Your task to perform on an android device: turn on javascript in the chrome app Image 0: 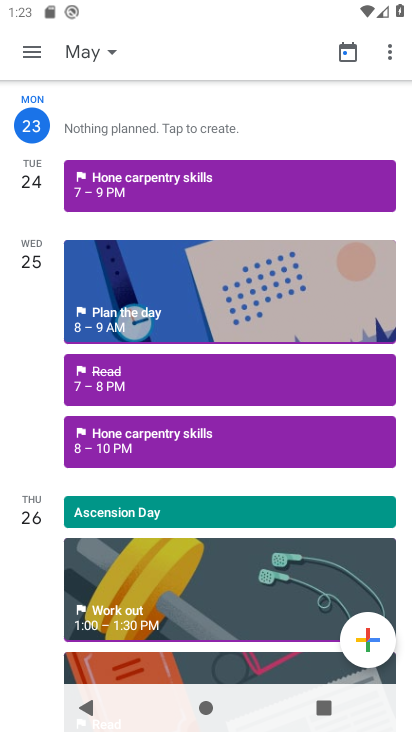
Step 0: click (204, 371)
Your task to perform on an android device: turn on javascript in the chrome app Image 1: 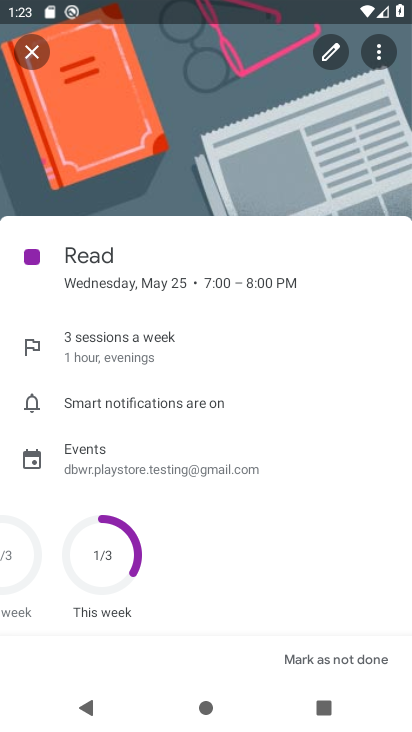
Step 1: press home button
Your task to perform on an android device: turn on javascript in the chrome app Image 2: 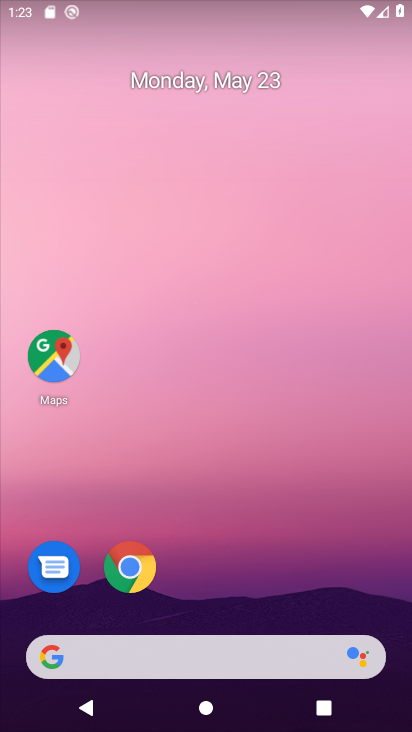
Step 2: drag from (237, 549) to (216, 265)
Your task to perform on an android device: turn on javascript in the chrome app Image 3: 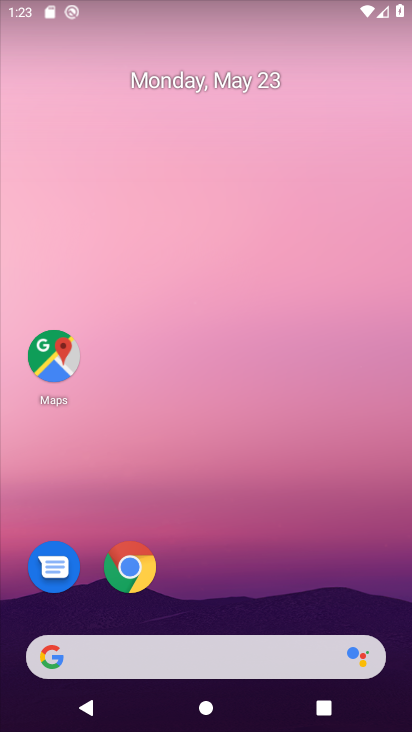
Step 3: drag from (207, 563) to (195, 192)
Your task to perform on an android device: turn on javascript in the chrome app Image 4: 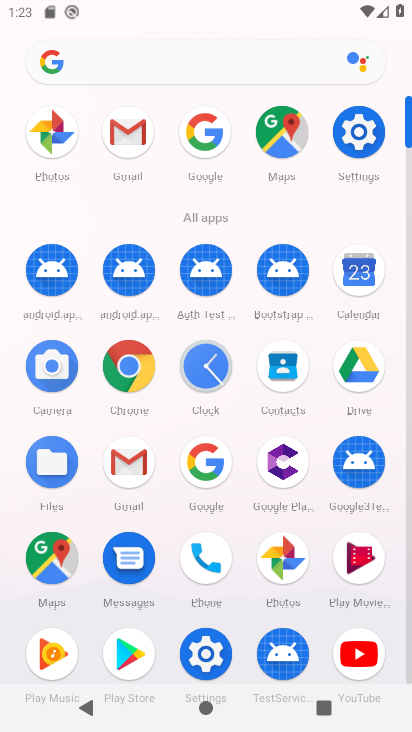
Step 4: click (133, 366)
Your task to perform on an android device: turn on javascript in the chrome app Image 5: 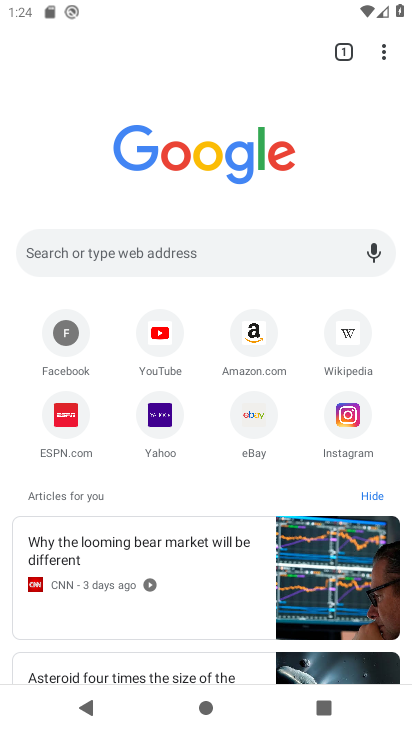
Step 5: click (402, 53)
Your task to perform on an android device: turn on javascript in the chrome app Image 6: 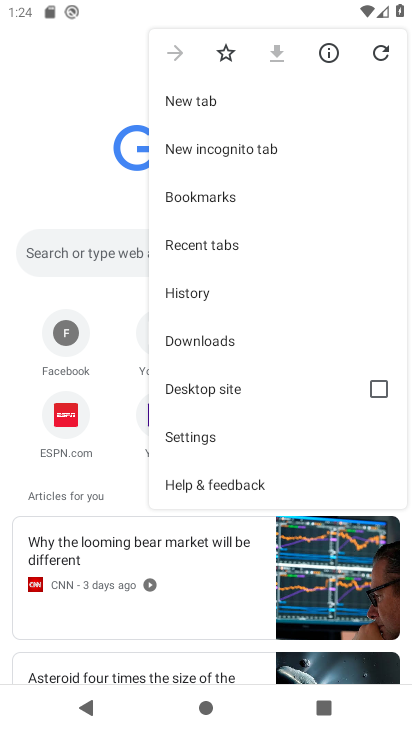
Step 6: click (388, 56)
Your task to perform on an android device: turn on javascript in the chrome app Image 7: 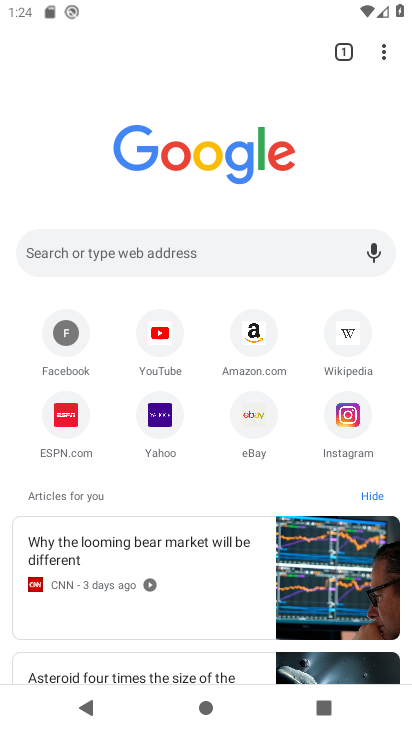
Step 7: click (384, 54)
Your task to perform on an android device: turn on javascript in the chrome app Image 8: 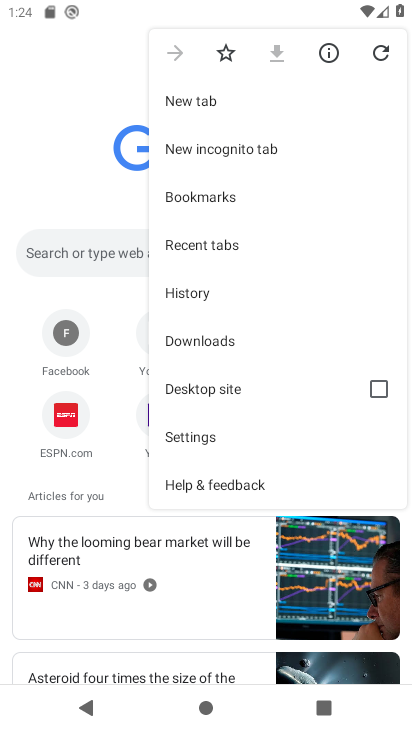
Step 8: click (224, 444)
Your task to perform on an android device: turn on javascript in the chrome app Image 9: 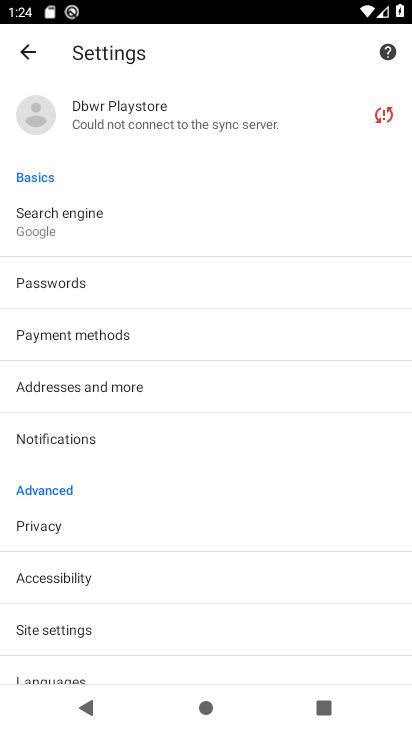
Step 9: drag from (115, 551) to (139, 373)
Your task to perform on an android device: turn on javascript in the chrome app Image 10: 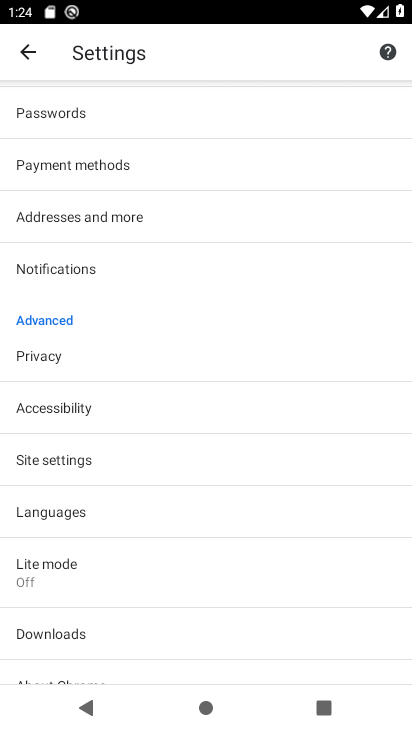
Step 10: click (89, 459)
Your task to perform on an android device: turn on javascript in the chrome app Image 11: 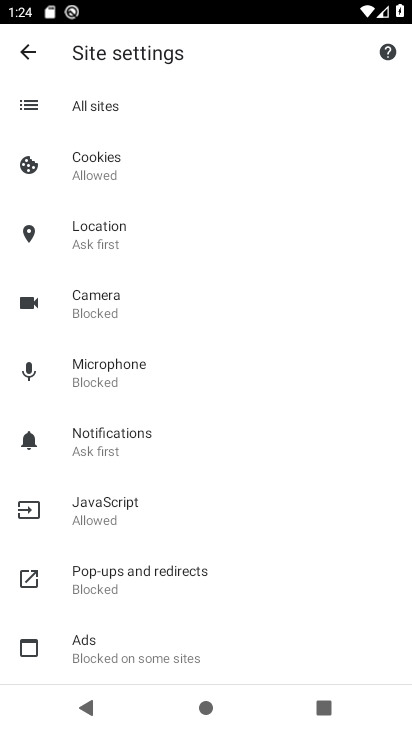
Step 11: click (146, 520)
Your task to perform on an android device: turn on javascript in the chrome app Image 12: 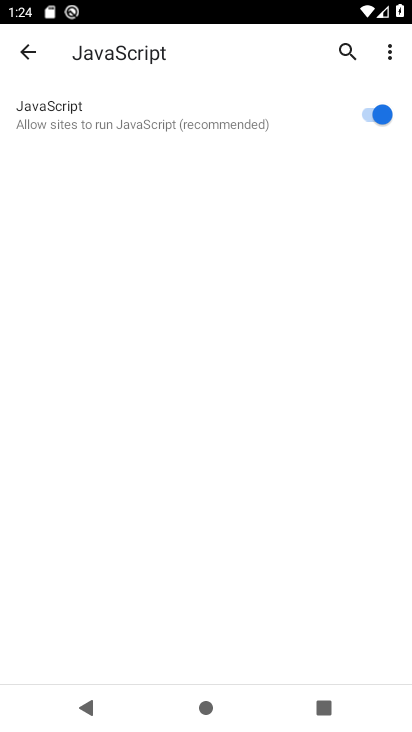
Step 12: task complete